Your task to perform on an android device: check storage Image 0: 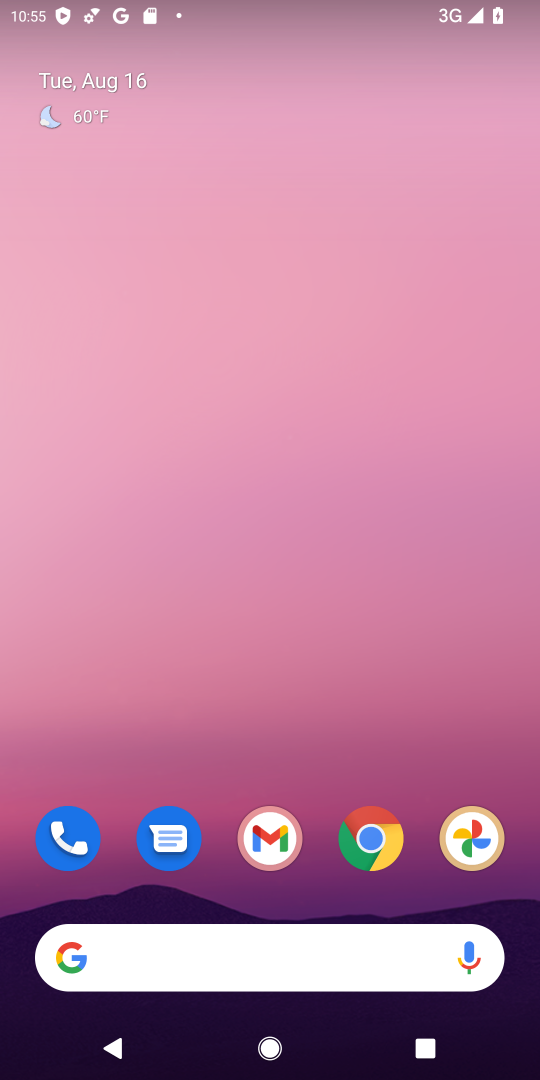
Step 0: press home button
Your task to perform on an android device: check storage Image 1: 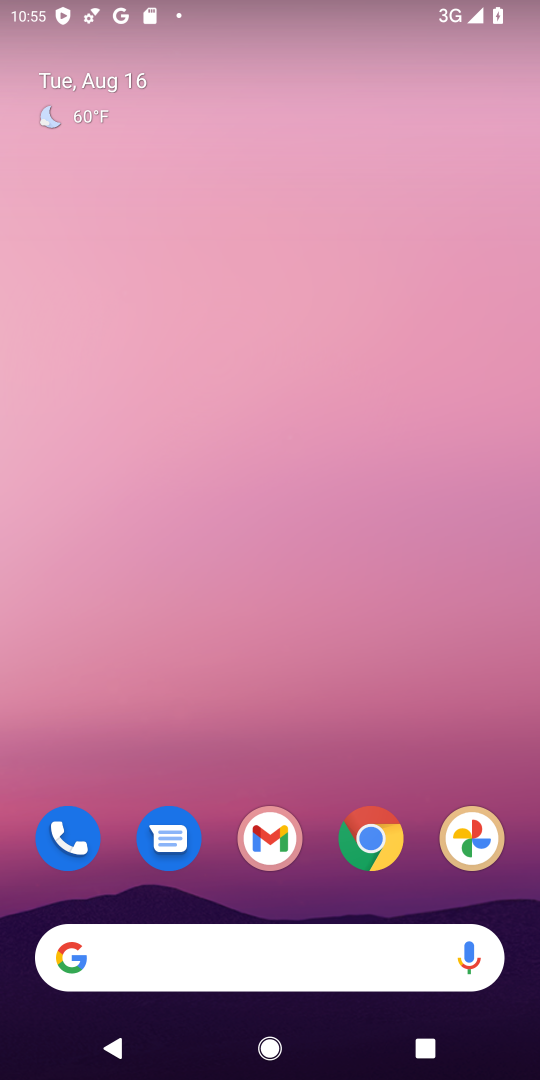
Step 1: drag from (316, 885) to (316, 281)
Your task to perform on an android device: check storage Image 2: 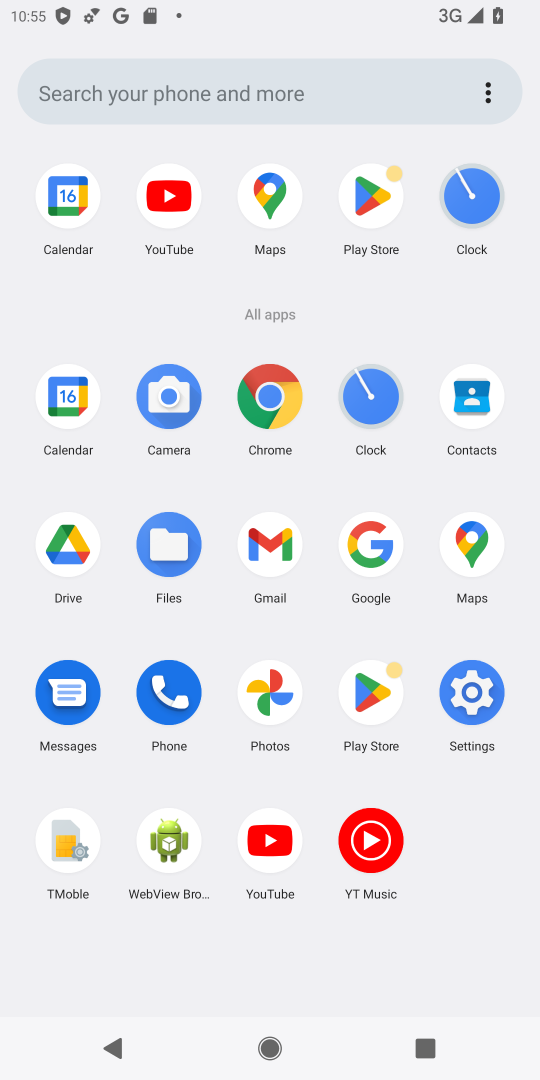
Step 2: click (476, 701)
Your task to perform on an android device: check storage Image 3: 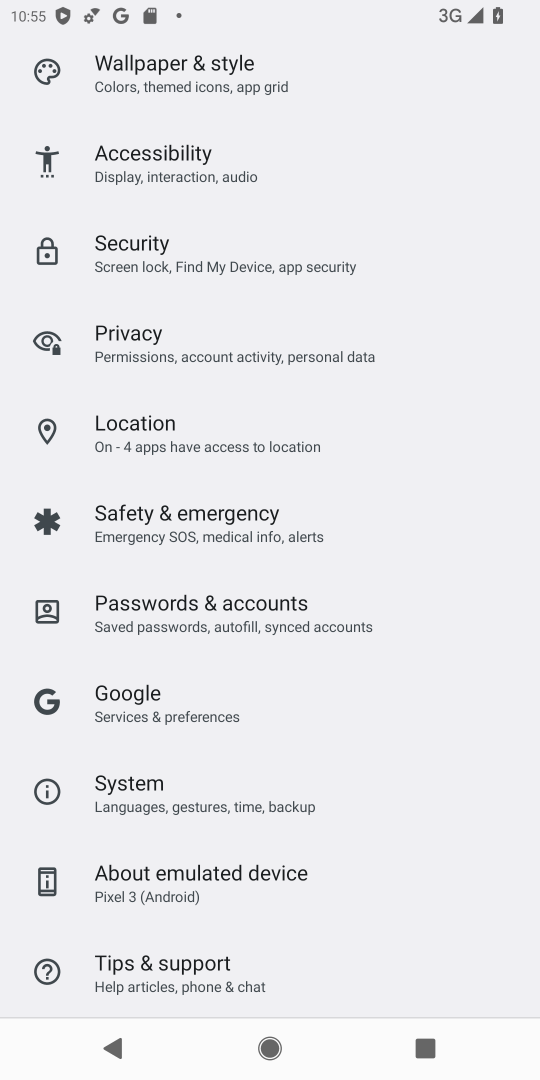
Step 3: drag from (418, 197) to (365, 1016)
Your task to perform on an android device: check storage Image 4: 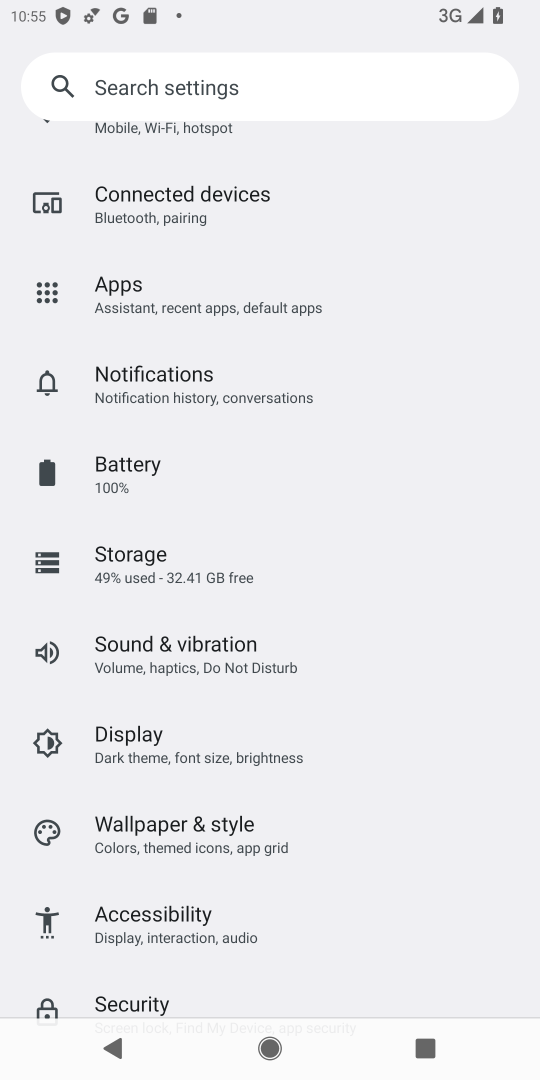
Step 4: click (119, 574)
Your task to perform on an android device: check storage Image 5: 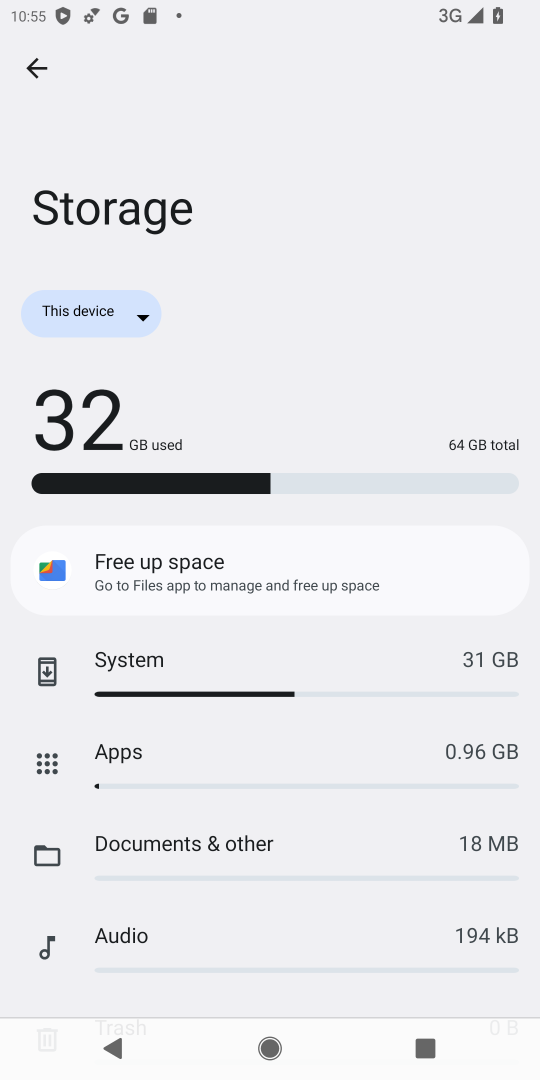
Step 5: task complete